Your task to perform on an android device: star an email in the gmail app Image 0: 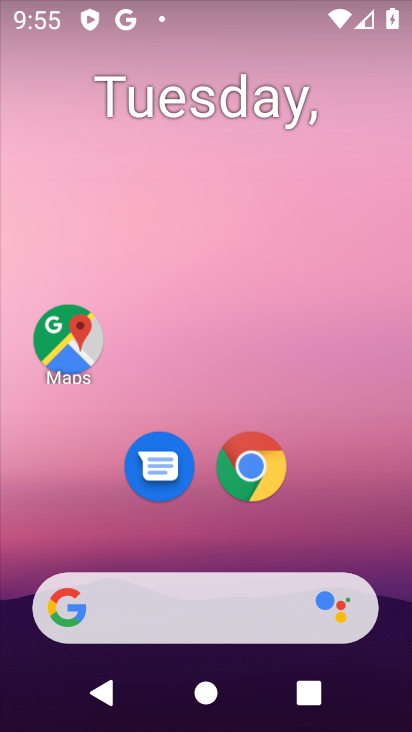
Step 0: drag from (356, 306) to (366, 113)
Your task to perform on an android device: star an email in the gmail app Image 1: 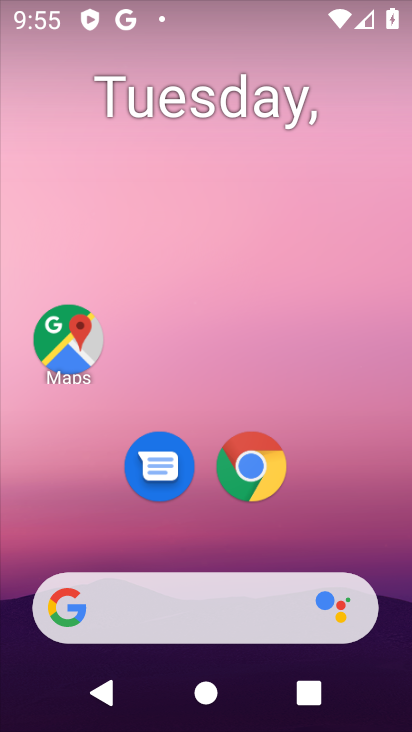
Step 1: drag from (333, 524) to (358, 76)
Your task to perform on an android device: star an email in the gmail app Image 2: 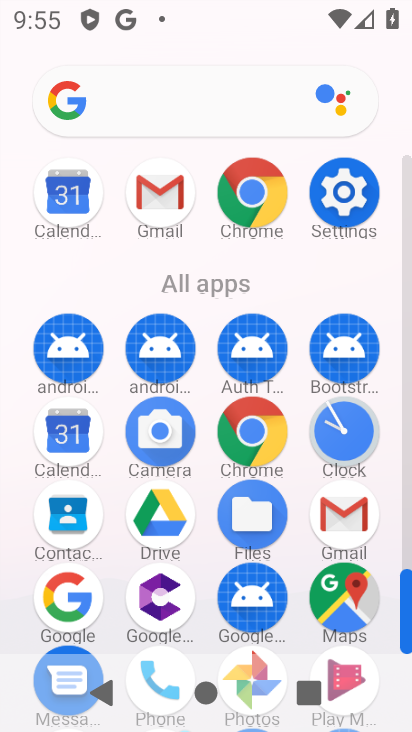
Step 2: click (169, 205)
Your task to perform on an android device: star an email in the gmail app Image 3: 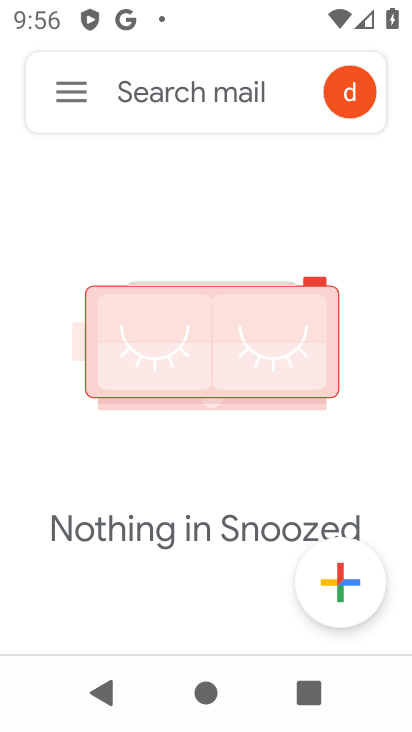
Step 3: click (69, 77)
Your task to perform on an android device: star an email in the gmail app Image 4: 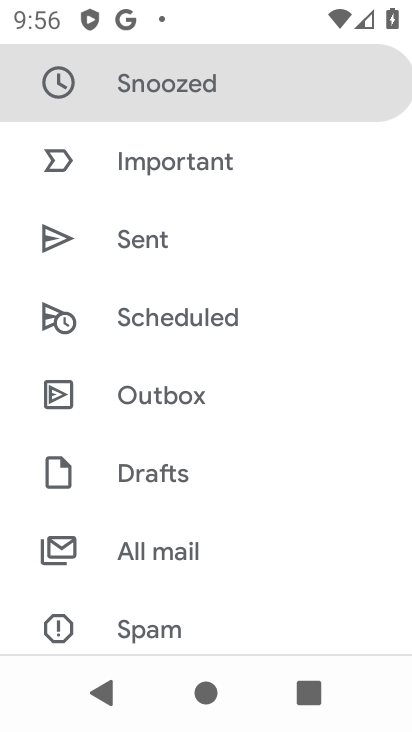
Step 4: drag from (266, 254) to (283, 632)
Your task to perform on an android device: star an email in the gmail app Image 5: 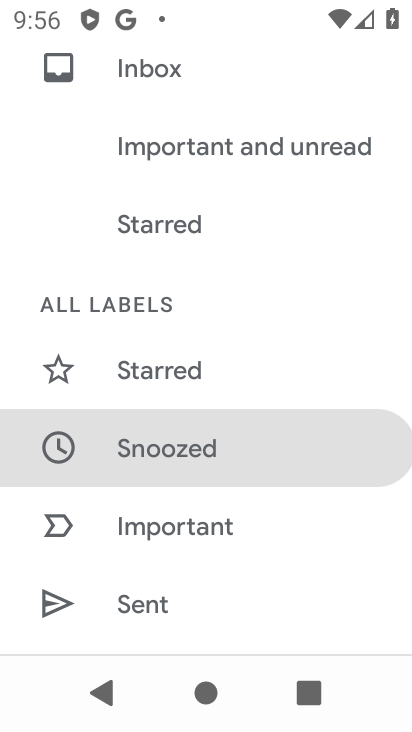
Step 5: click (164, 362)
Your task to perform on an android device: star an email in the gmail app Image 6: 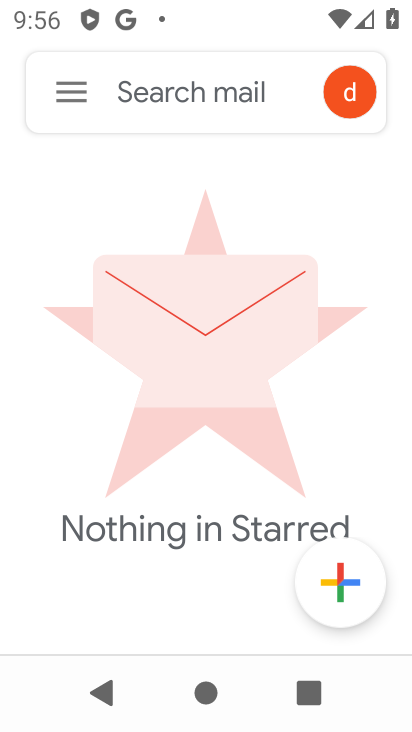
Step 6: click (75, 87)
Your task to perform on an android device: star an email in the gmail app Image 7: 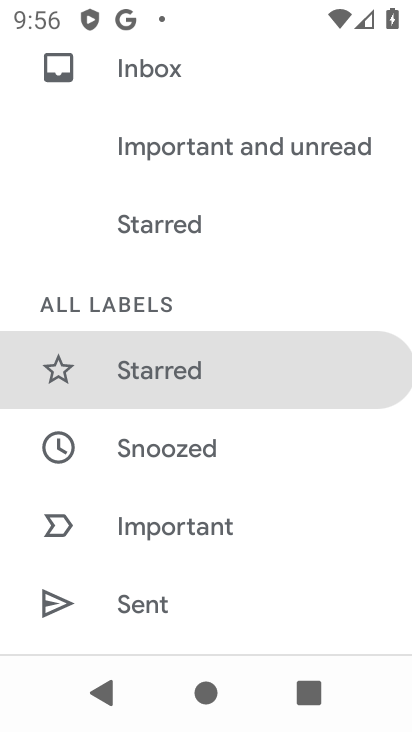
Step 7: drag from (164, 539) to (277, 84)
Your task to perform on an android device: star an email in the gmail app Image 8: 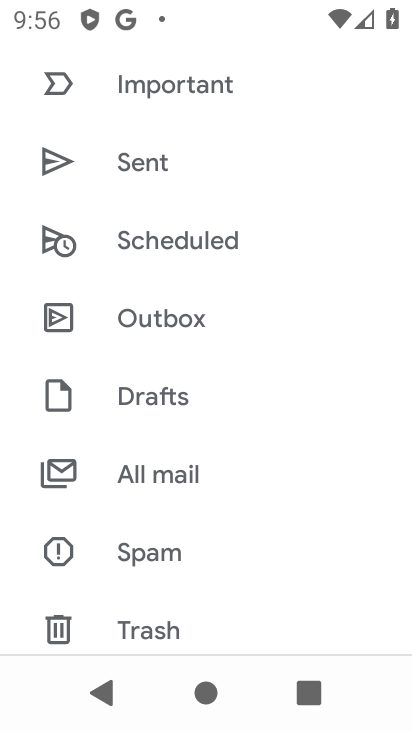
Step 8: click (162, 481)
Your task to perform on an android device: star an email in the gmail app Image 9: 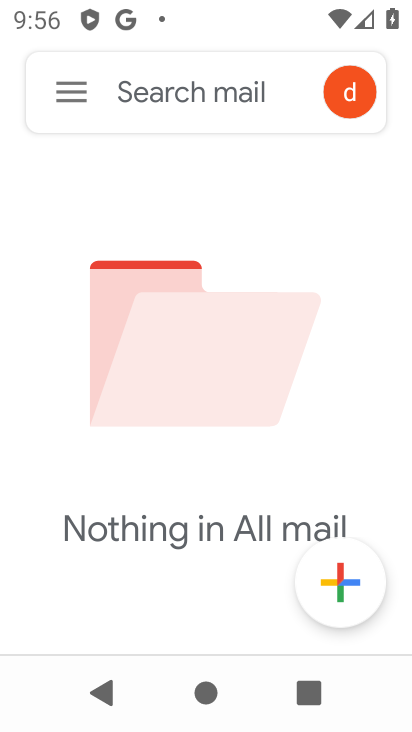
Step 9: task complete